Your task to perform on an android device: Open eBay Image 0: 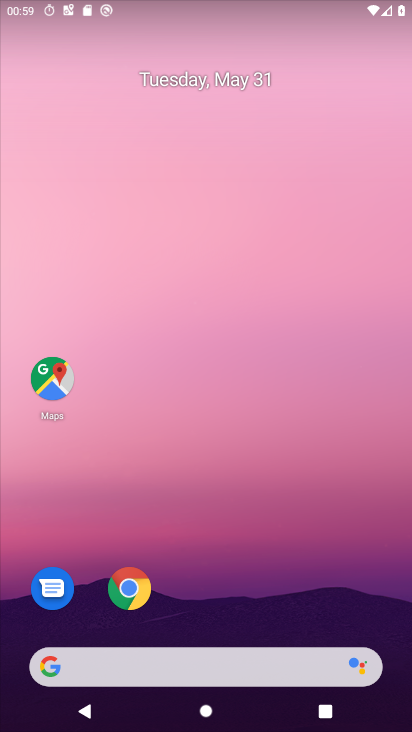
Step 0: drag from (224, 675) to (290, 25)
Your task to perform on an android device: Open eBay Image 1: 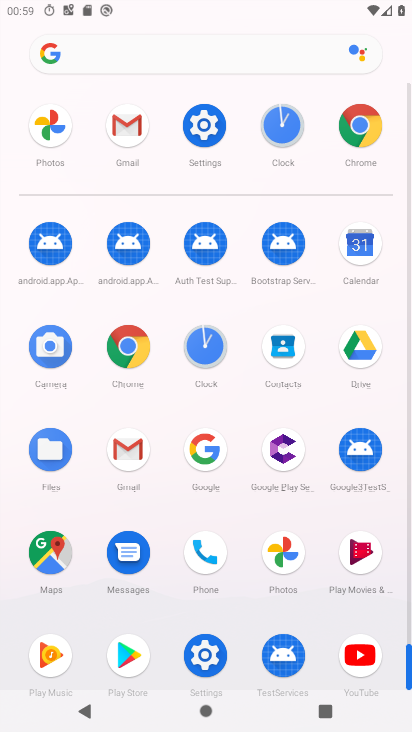
Step 1: click (129, 360)
Your task to perform on an android device: Open eBay Image 2: 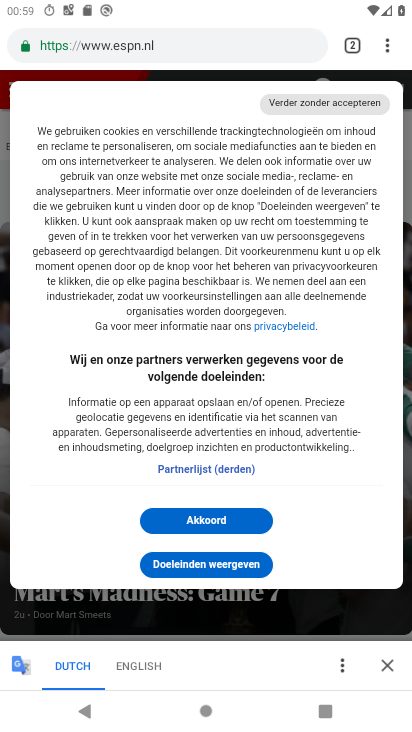
Step 2: click (243, 47)
Your task to perform on an android device: Open eBay Image 3: 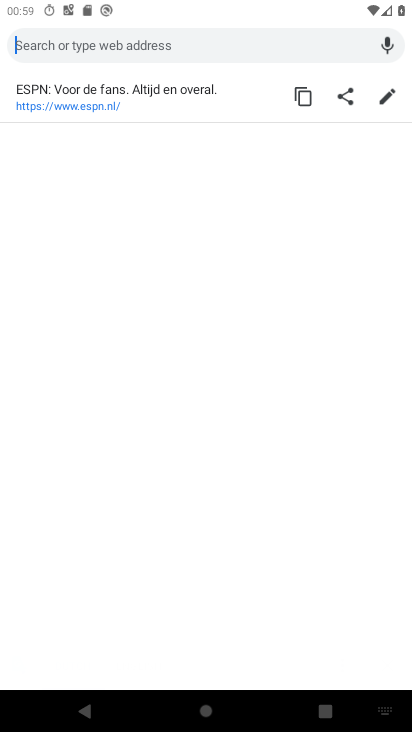
Step 3: type "ebay"
Your task to perform on an android device: Open eBay Image 4: 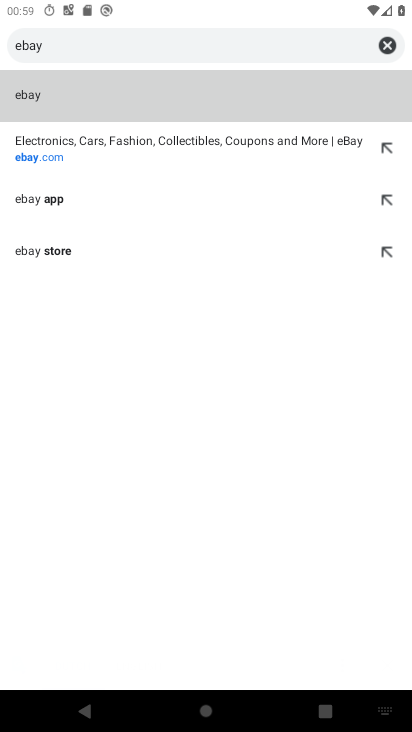
Step 4: click (186, 161)
Your task to perform on an android device: Open eBay Image 5: 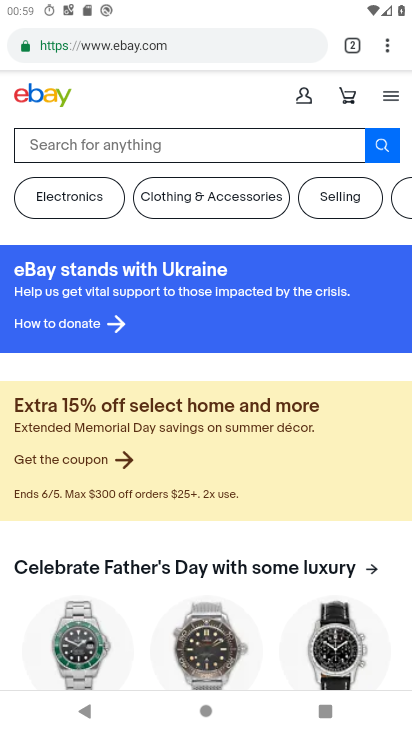
Step 5: task complete